Your task to perform on an android device: check out phone information Image 0: 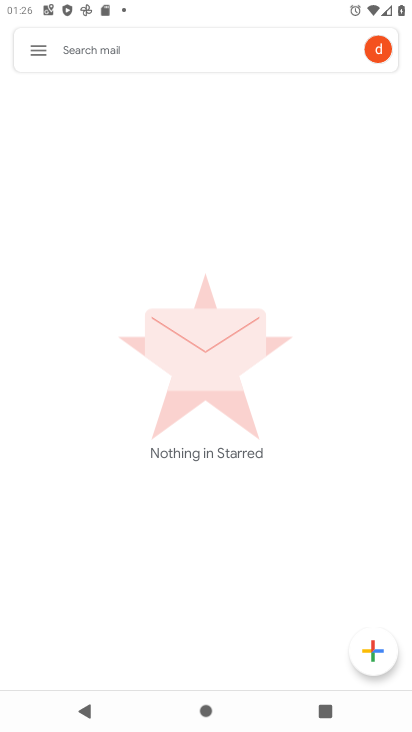
Step 0: press home button
Your task to perform on an android device: check out phone information Image 1: 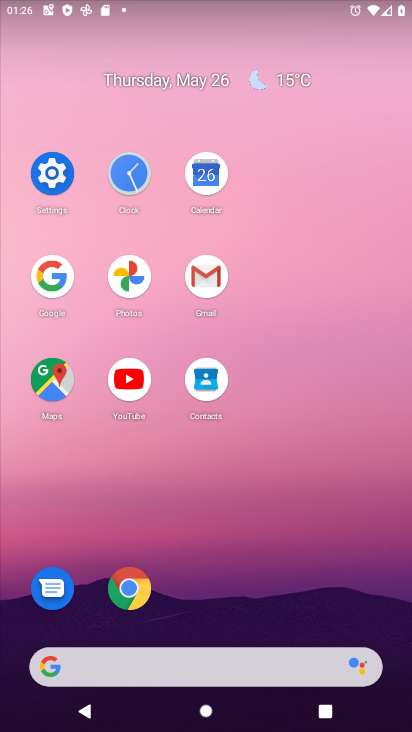
Step 1: click (50, 174)
Your task to perform on an android device: check out phone information Image 2: 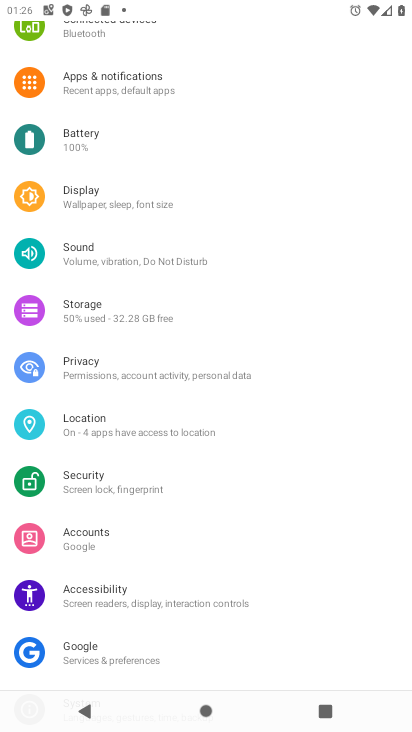
Step 2: drag from (265, 545) to (214, 201)
Your task to perform on an android device: check out phone information Image 3: 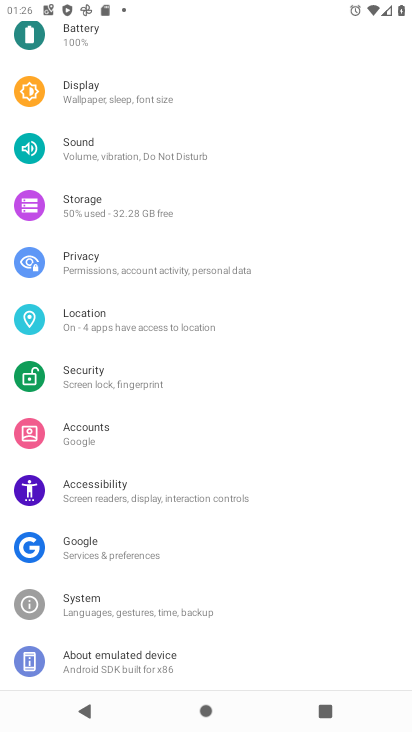
Step 3: click (147, 659)
Your task to perform on an android device: check out phone information Image 4: 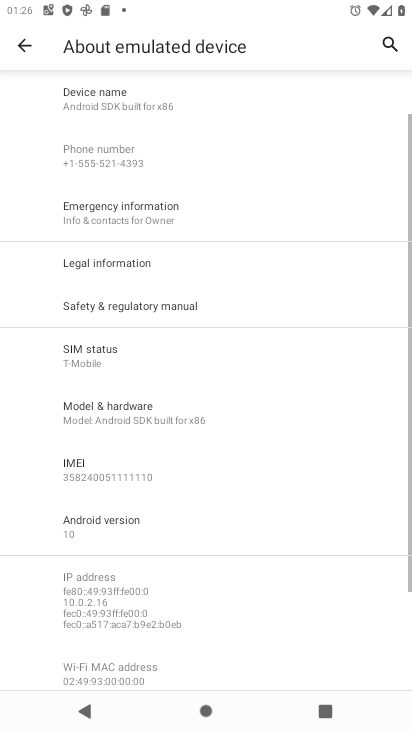
Step 4: click (236, 405)
Your task to perform on an android device: check out phone information Image 5: 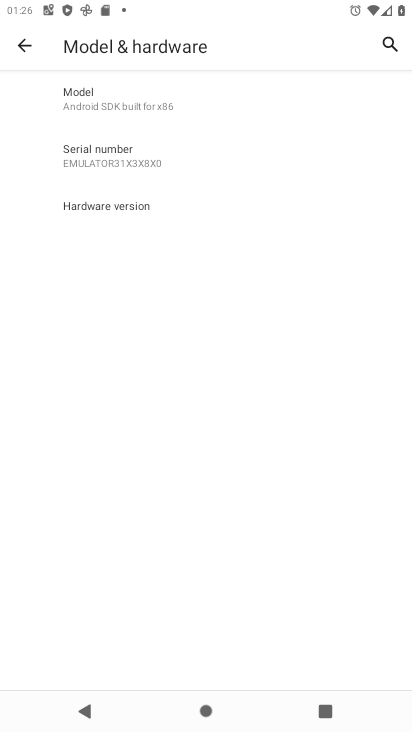
Step 5: task complete